Your task to perform on an android device: turn off smart reply in the gmail app Image 0: 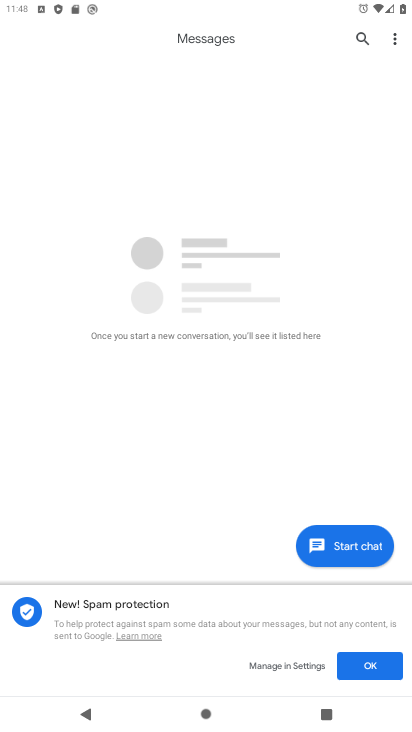
Step 0: press home button
Your task to perform on an android device: turn off smart reply in the gmail app Image 1: 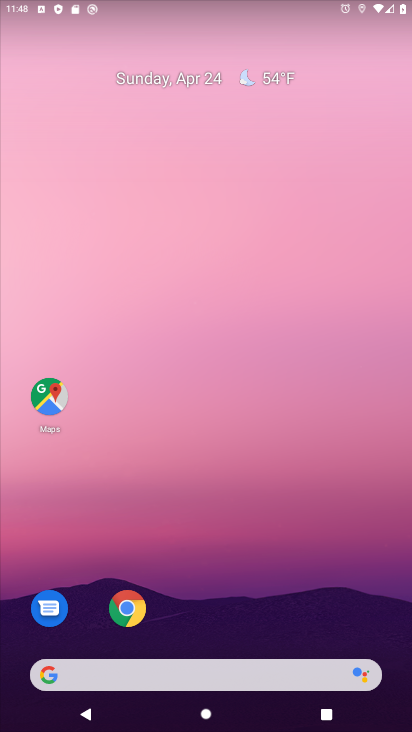
Step 1: drag from (379, 637) to (320, 23)
Your task to perform on an android device: turn off smart reply in the gmail app Image 2: 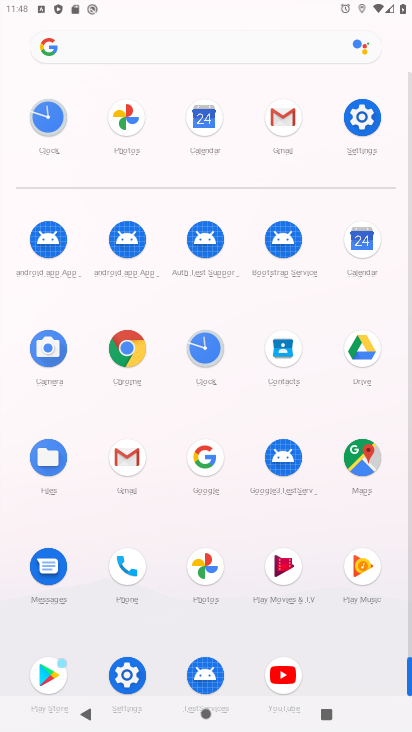
Step 2: click (128, 456)
Your task to perform on an android device: turn off smart reply in the gmail app Image 3: 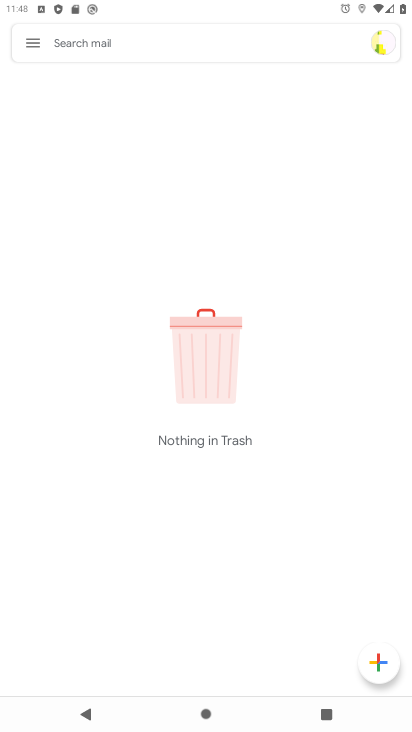
Step 3: click (34, 42)
Your task to perform on an android device: turn off smart reply in the gmail app Image 4: 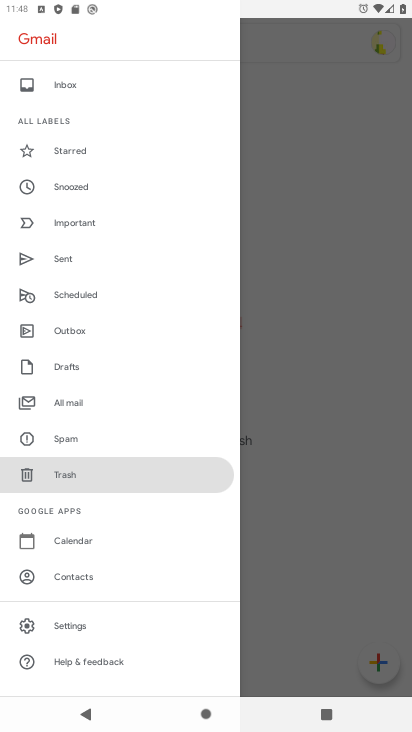
Step 4: drag from (146, 519) to (159, 278)
Your task to perform on an android device: turn off smart reply in the gmail app Image 5: 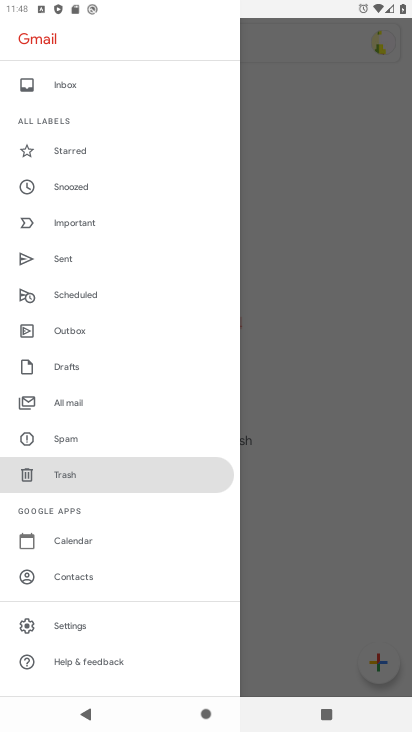
Step 5: click (71, 633)
Your task to perform on an android device: turn off smart reply in the gmail app Image 6: 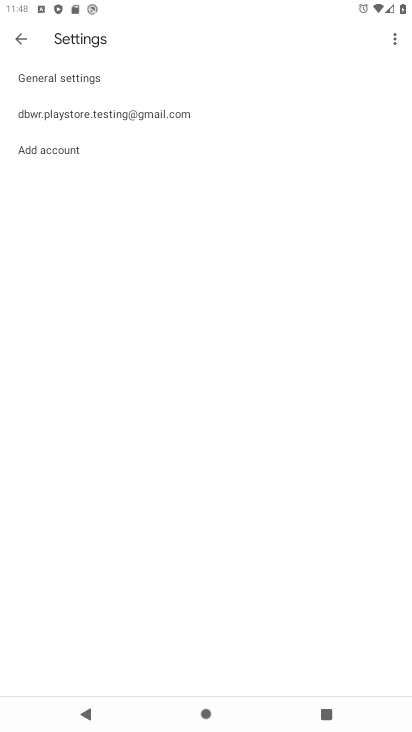
Step 6: click (123, 108)
Your task to perform on an android device: turn off smart reply in the gmail app Image 7: 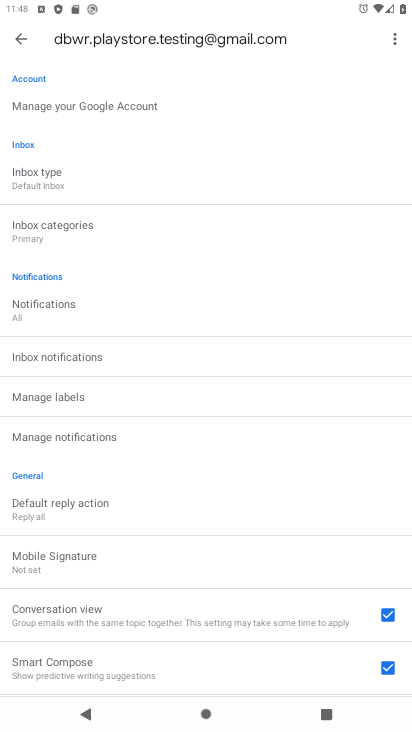
Step 7: task complete